Your task to perform on an android device: Check the weather Image 0: 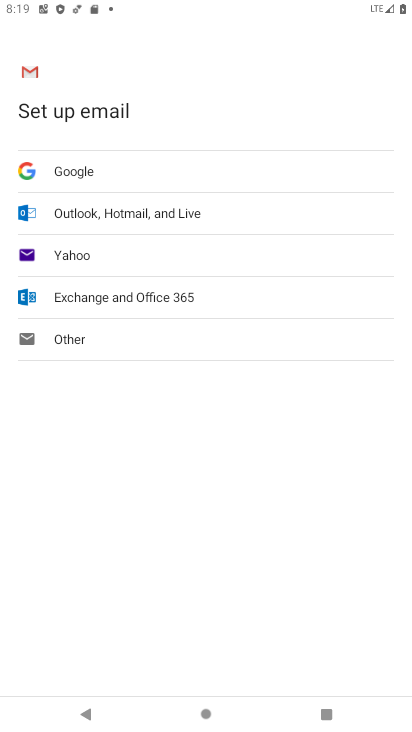
Step 0: press home button
Your task to perform on an android device: Check the weather Image 1: 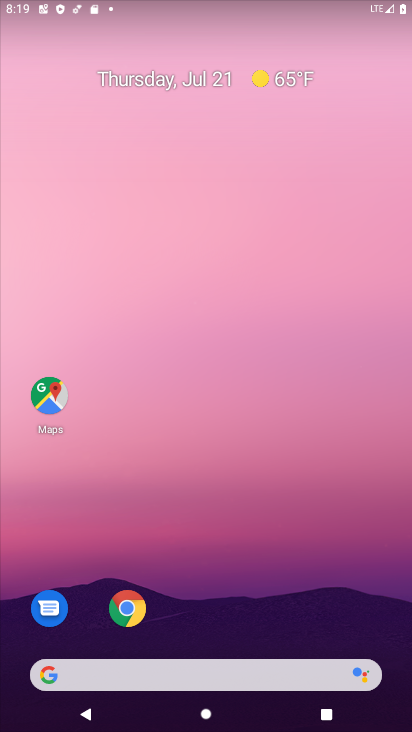
Step 1: drag from (235, 669) to (265, 123)
Your task to perform on an android device: Check the weather Image 2: 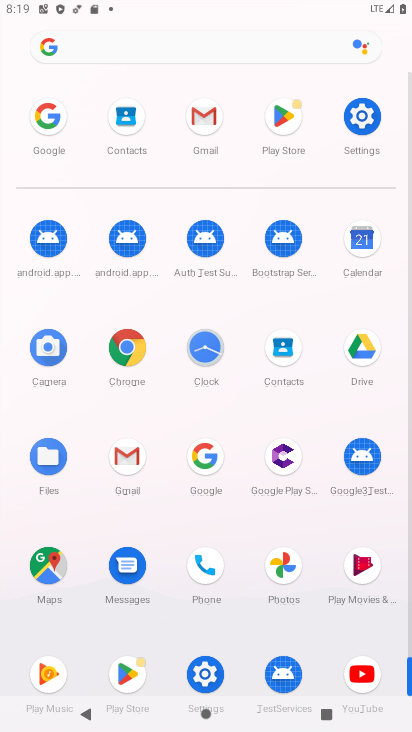
Step 2: click (44, 112)
Your task to perform on an android device: Check the weather Image 3: 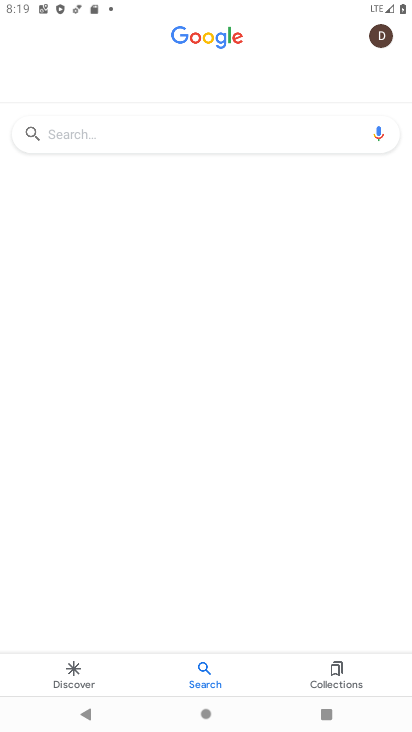
Step 3: click (293, 143)
Your task to perform on an android device: Check the weather Image 4: 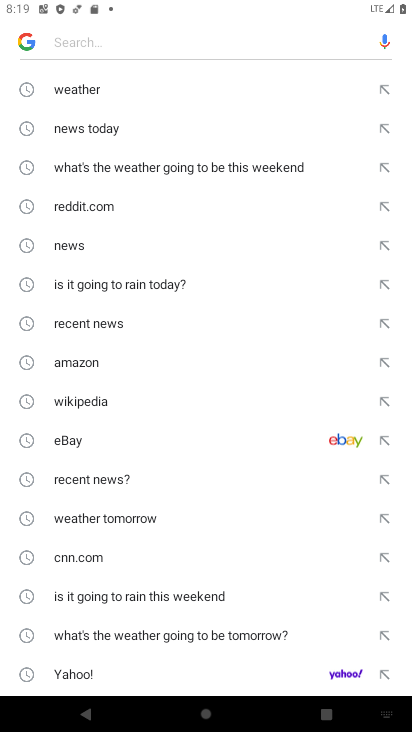
Step 4: click (77, 87)
Your task to perform on an android device: Check the weather Image 5: 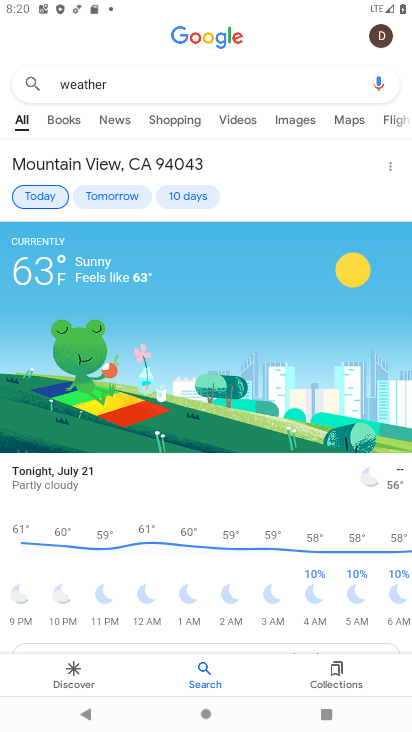
Step 5: task complete